Your task to perform on an android device: toggle translation in the chrome app Image 0: 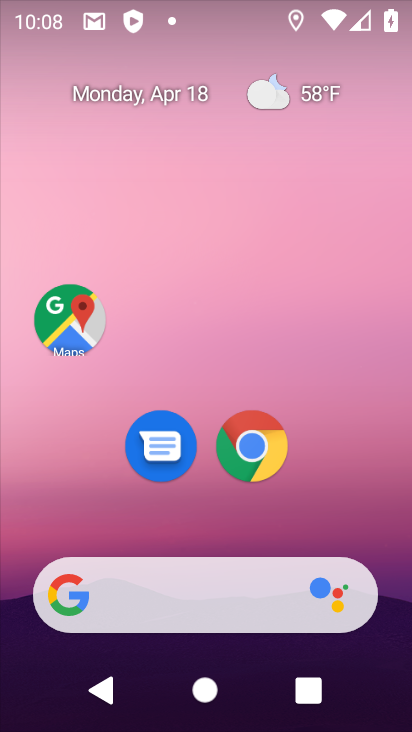
Step 0: drag from (371, 503) to (354, 74)
Your task to perform on an android device: toggle translation in the chrome app Image 1: 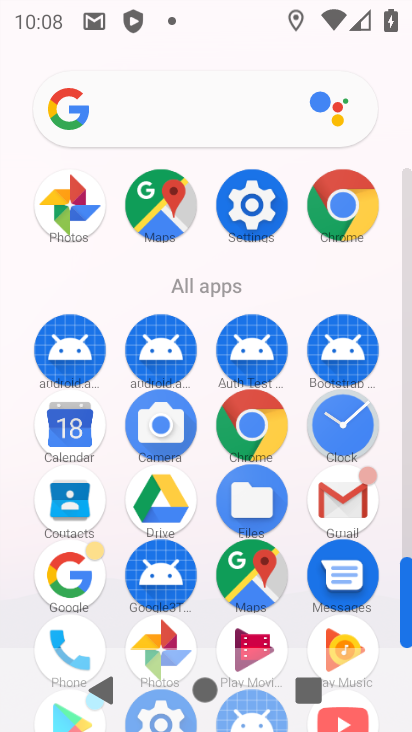
Step 1: click (254, 433)
Your task to perform on an android device: toggle translation in the chrome app Image 2: 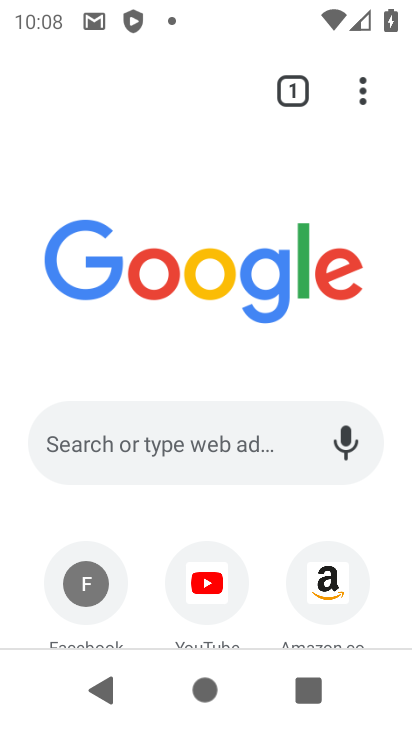
Step 2: click (362, 100)
Your task to perform on an android device: toggle translation in the chrome app Image 3: 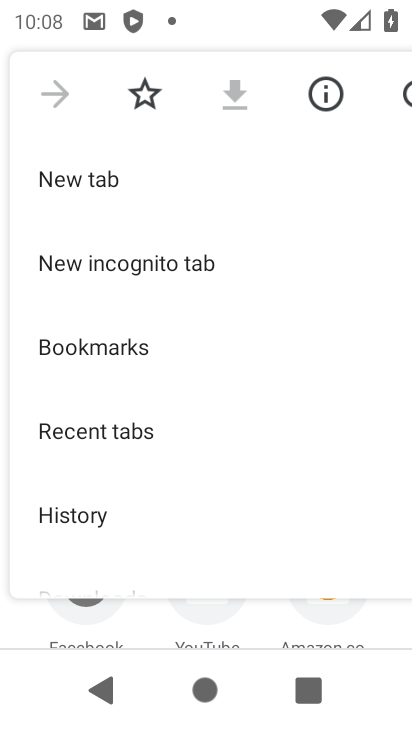
Step 3: drag from (338, 497) to (338, 245)
Your task to perform on an android device: toggle translation in the chrome app Image 4: 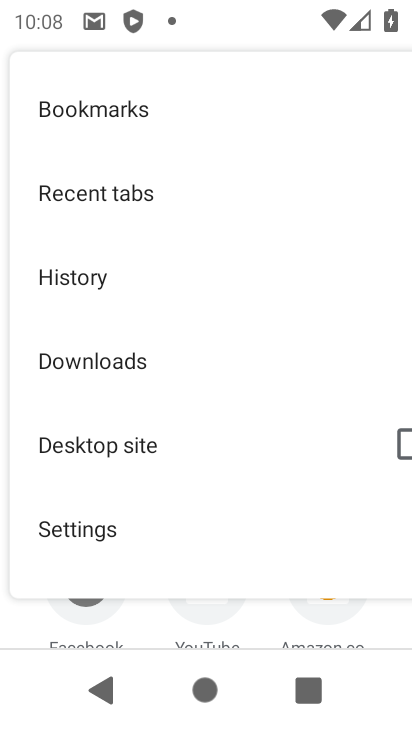
Step 4: drag from (312, 487) to (304, 229)
Your task to perform on an android device: toggle translation in the chrome app Image 5: 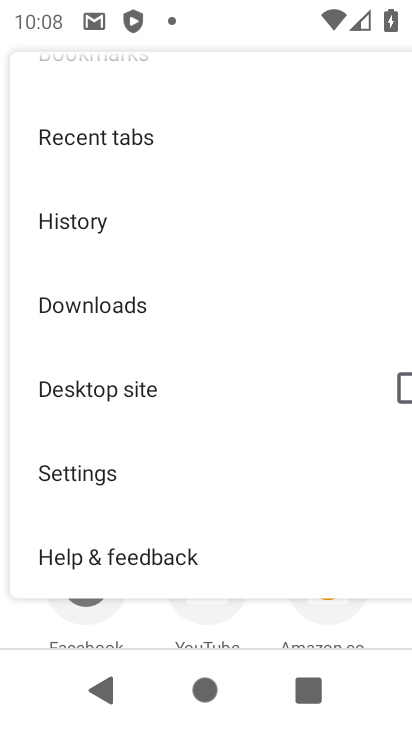
Step 5: click (95, 476)
Your task to perform on an android device: toggle translation in the chrome app Image 6: 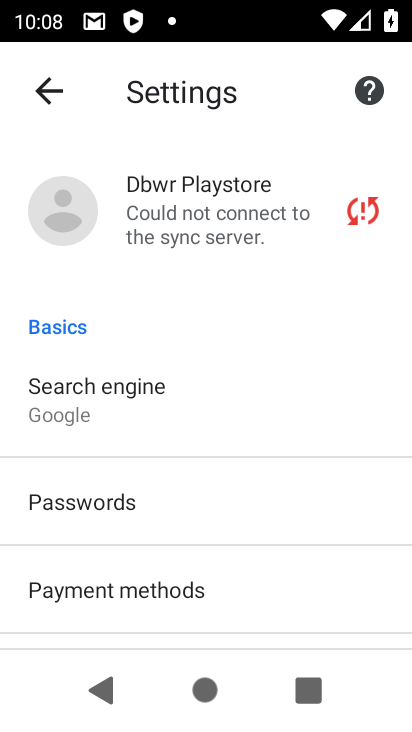
Step 6: drag from (298, 574) to (294, 341)
Your task to perform on an android device: toggle translation in the chrome app Image 7: 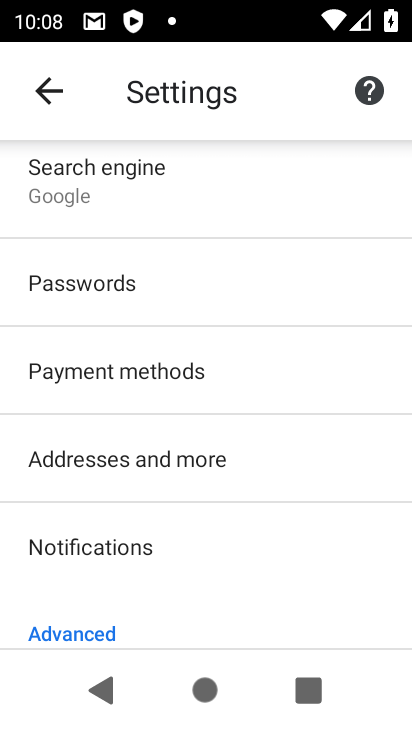
Step 7: drag from (307, 558) to (310, 400)
Your task to perform on an android device: toggle translation in the chrome app Image 8: 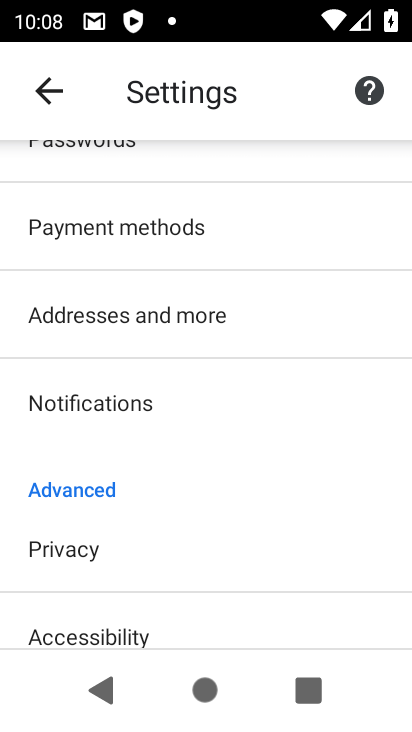
Step 8: drag from (325, 549) to (327, 395)
Your task to perform on an android device: toggle translation in the chrome app Image 9: 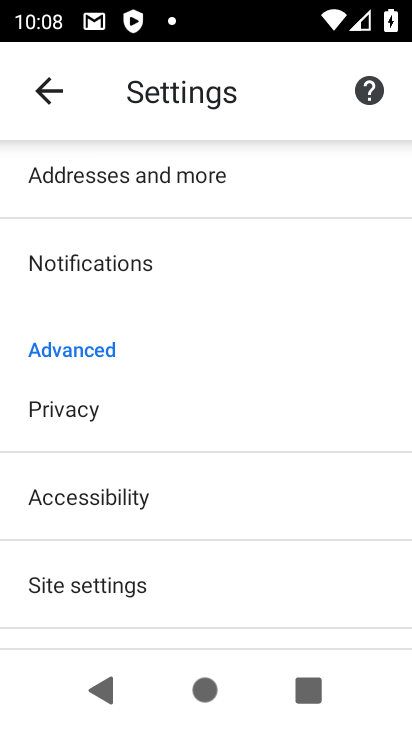
Step 9: drag from (349, 572) to (342, 375)
Your task to perform on an android device: toggle translation in the chrome app Image 10: 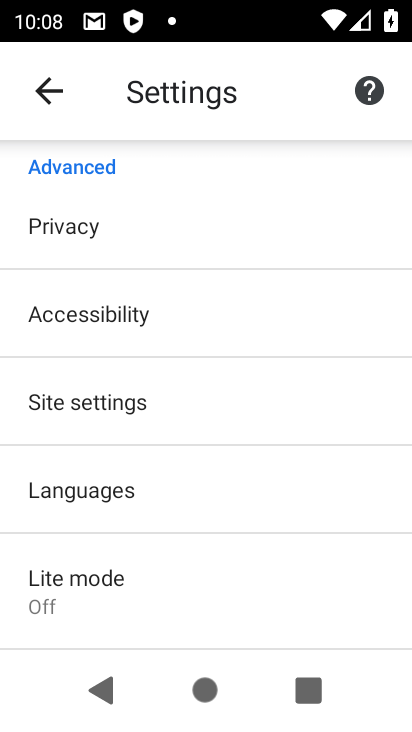
Step 10: click (307, 491)
Your task to perform on an android device: toggle translation in the chrome app Image 11: 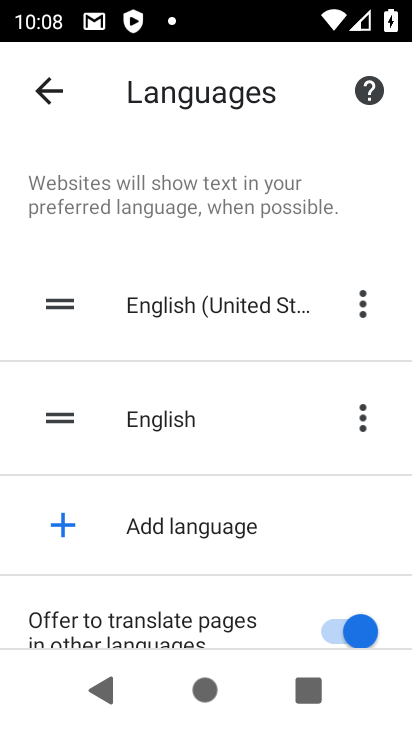
Step 11: drag from (292, 595) to (299, 358)
Your task to perform on an android device: toggle translation in the chrome app Image 12: 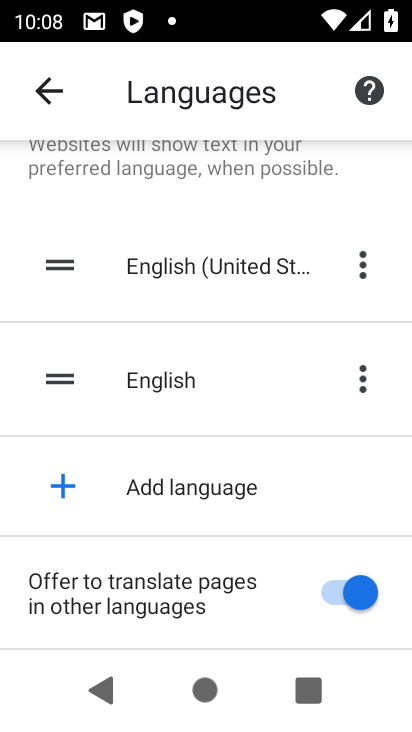
Step 12: click (332, 603)
Your task to perform on an android device: toggle translation in the chrome app Image 13: 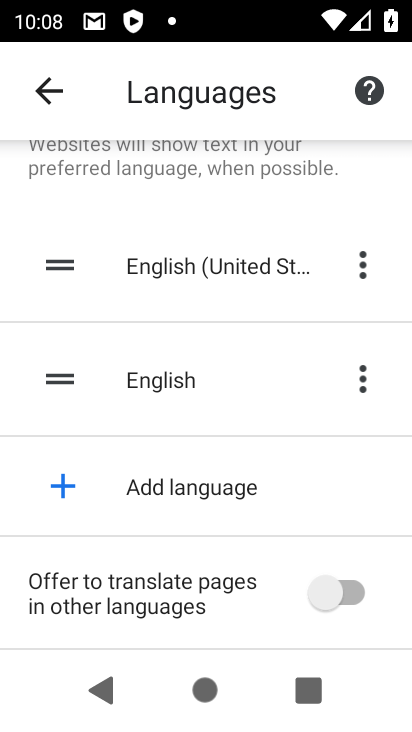
Step 13: task complete